Your task to perform on an android device: see tabs open on other devices in the chrome app Image 0: 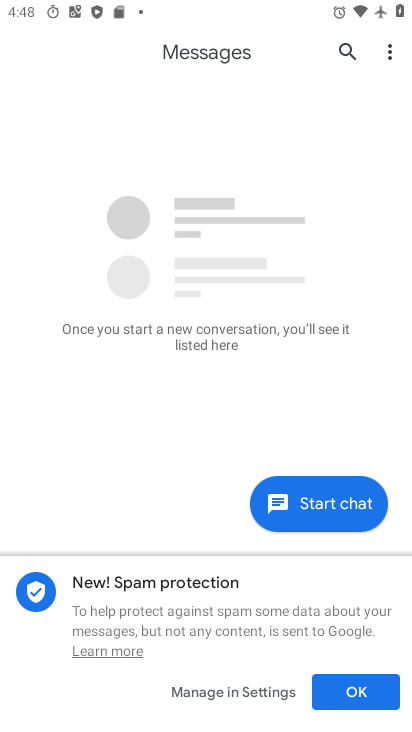
Step 0: press back button
Your task to perform on an android device: see tabs open on other devices in the chrome app Image 1: 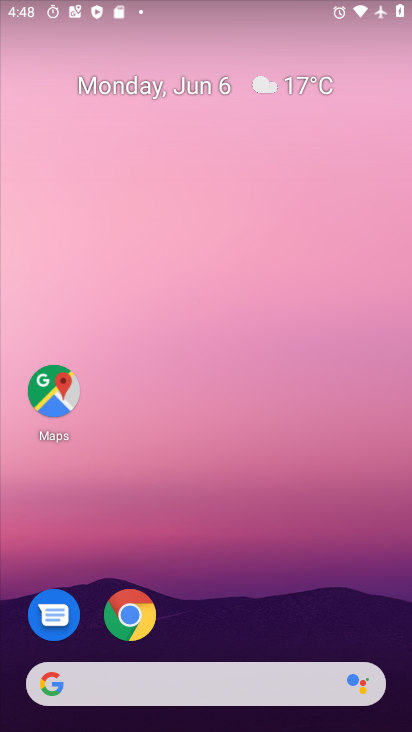
Step 1: drag from (216, 605) to (162, 63)
Your task to perform on an android device: see tabs open on other devices in the chrome app Image 2: 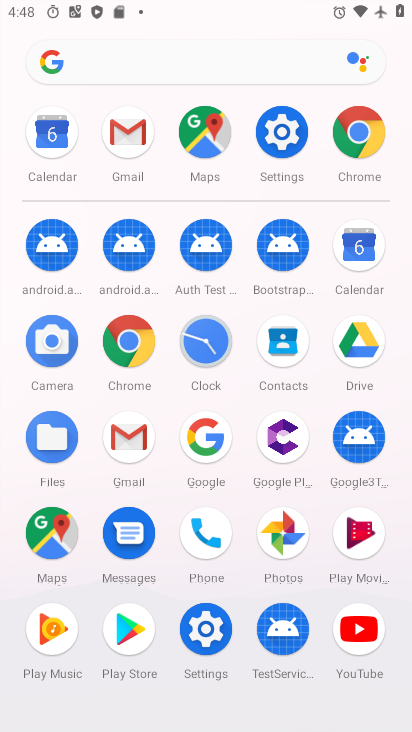
Step 2: drag from (9, 540) to (11, 253)
Your task to perform on an android device: see tabs open on other devices in the chrome app Image 3: 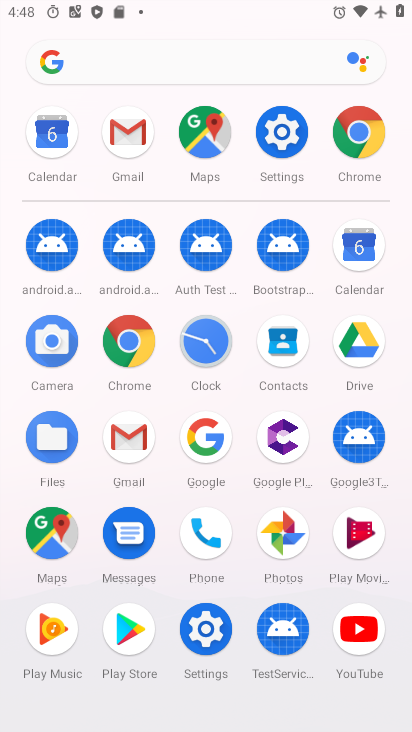
Step 3: click (124, 336)
Your task to perform on an android device: see tabs open on other devices in the chrome app Image 4: 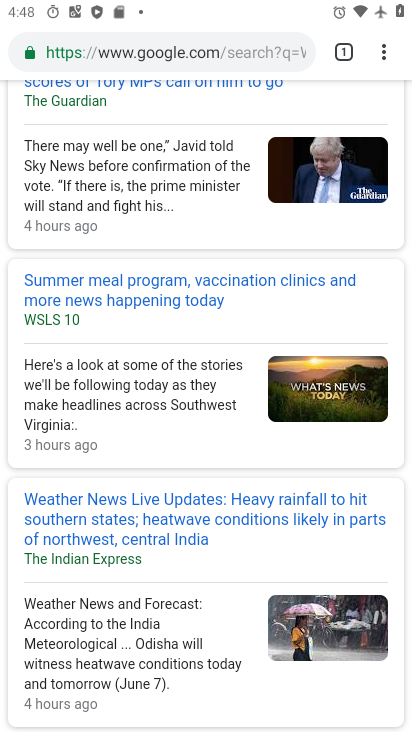
Step 4: task complete